Your task to perform on an android device: When is my next appointment? Image 0: 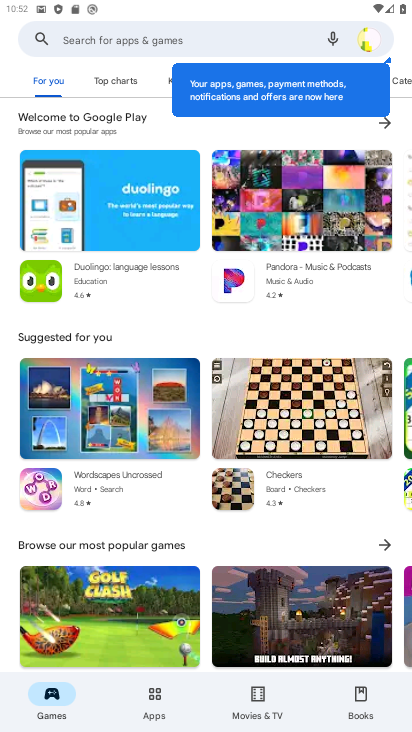
Step 0: press home button
Your task to perform on an android device: When is my next appointment? Image 1: 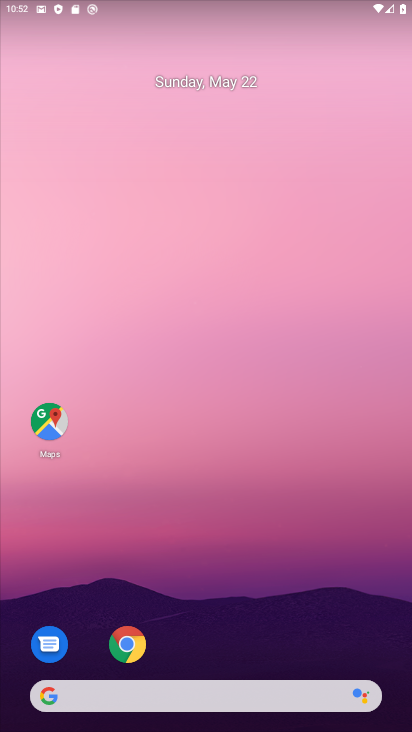
Step 1: drag from (209, 655) to (231, 115)
Your task to perform on an android device: When is my next appointment? Image 2: 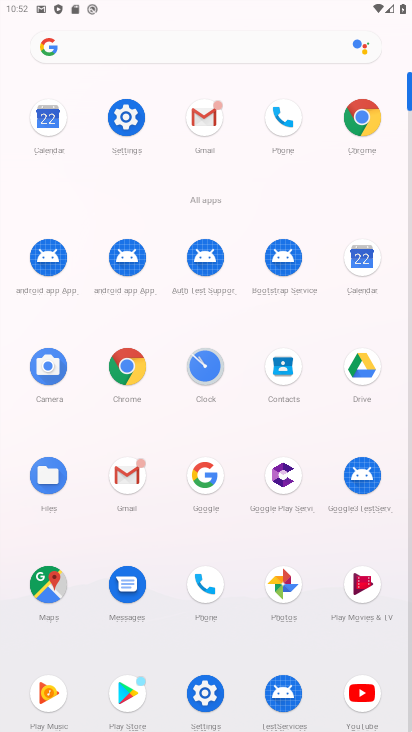
Step 2: click (356, 249)
Your task to perform on an android device: When is my next appointment? Image 3: 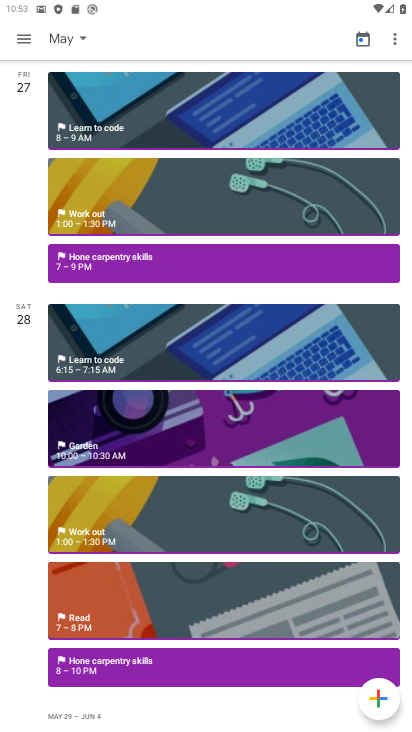
Step 3: click (21, 44)
Your task to perform on an android device: When is my next appointment? Image 4: 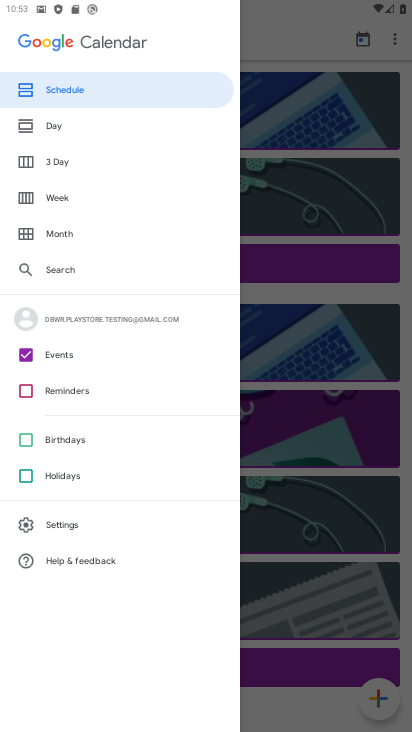
Step 4: click (57, 124)
Your task to perform on an android device: When is my next appointment? Image 5: 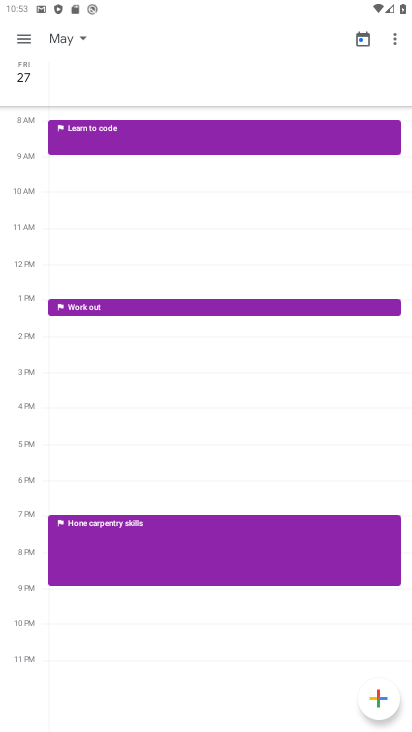
Step 5: click (31, 78)
Your task to perform on an android device: When is my next appointment? Image 6: 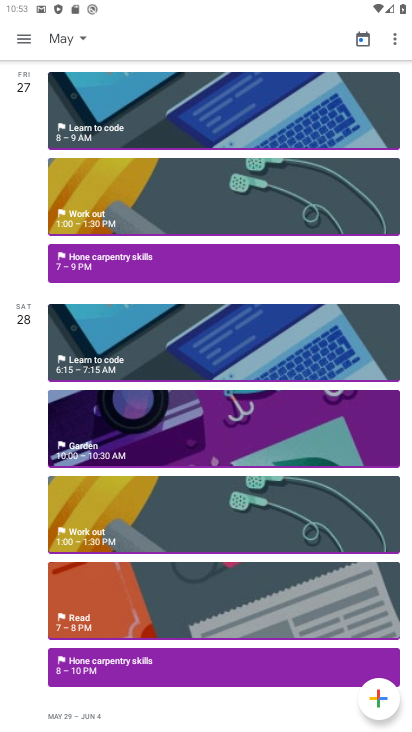
Step 6: task complete